Your task to perform on an android device: see sites visited before in the chrome app Image 0: 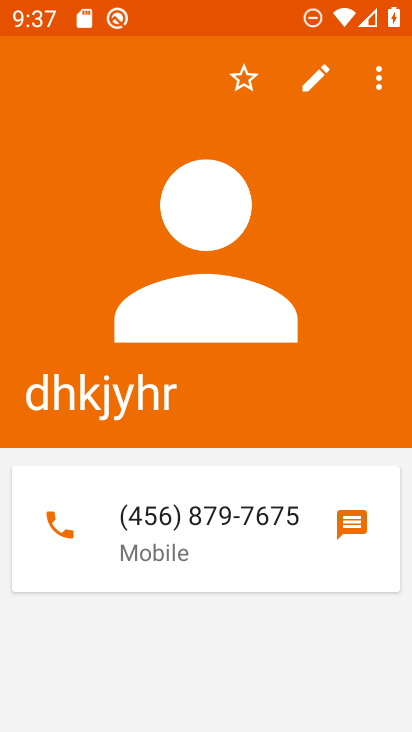
Step 0: press home button
Your task to perform on an android device: see sites visited before in the chrome app Image 1: 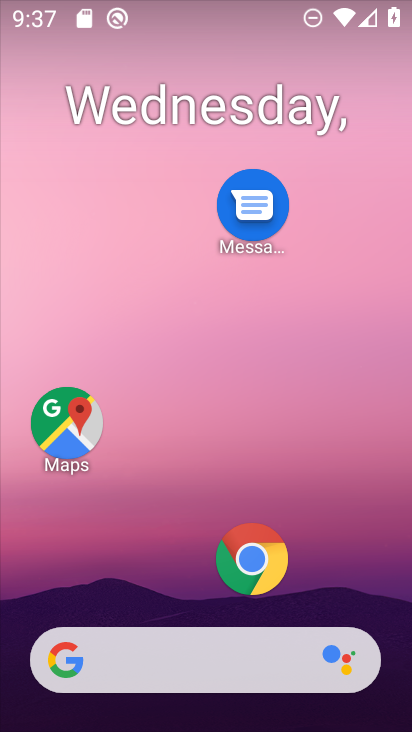
Step 1: drag from (184, 551) to (243, 192)
Your task to perform on an android device: see sites visited before in the chrome app Image 2: 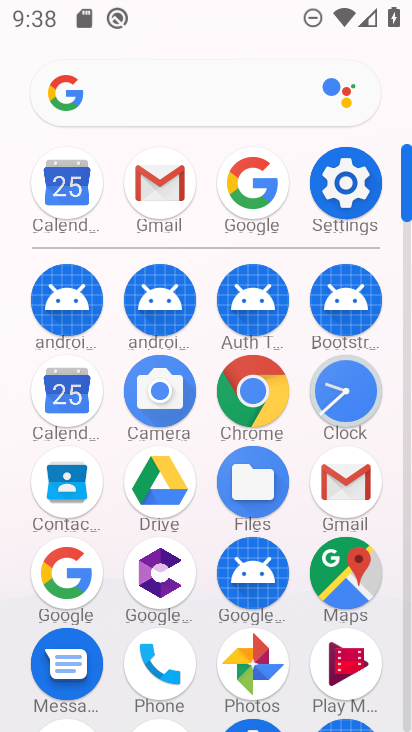
Step 2: click (251, 392)
Your task to perform on an android device: see sites visited before in the chrome app Image 3: 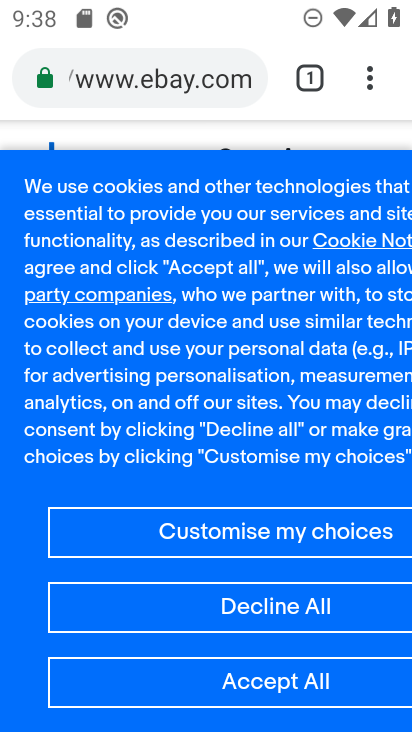
Step 3: click (382, 93)
Your task to perform on an android device: see sites visited before in the chrome app Image 4: 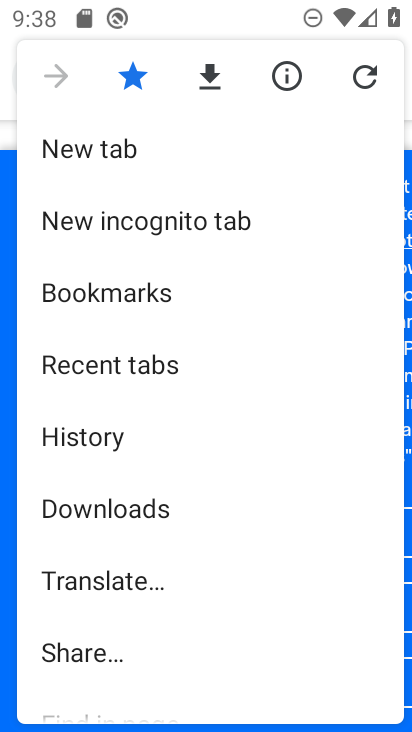
Step 4: click (109, 431)
Your task to perform on an android device: see sites visited before in the chrome app Image 5: 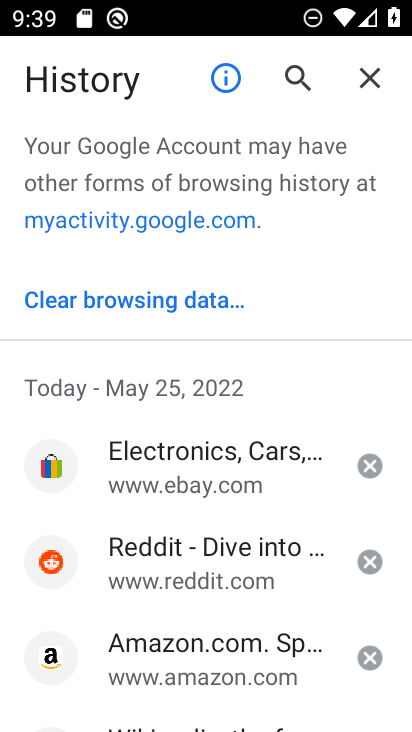
Step 5: task complete